Your task to perform on an android device: turn pop-ups on in chrome Image 0: 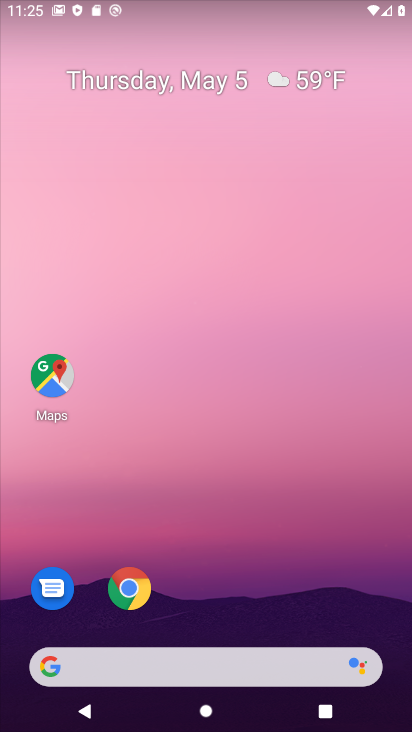
Step 0: drag from (174, 660) to (365, 34)
Your task to perform on an android device: turn pop-ups on in chrome Image 1: 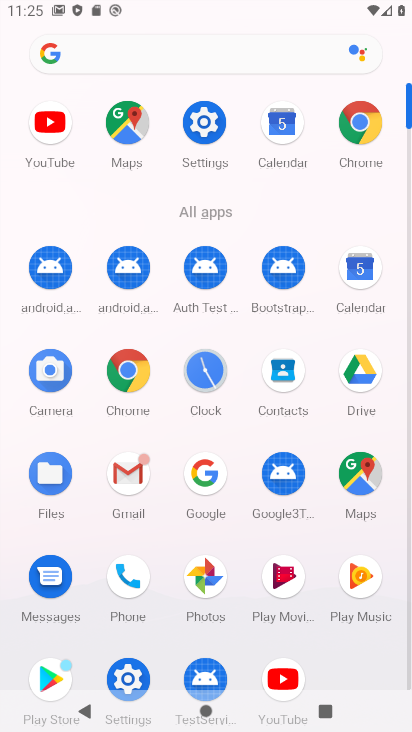
Step 1: click (360, 128)
Your task to perform on an android device: turn pop-ups on in chrome Image 2: 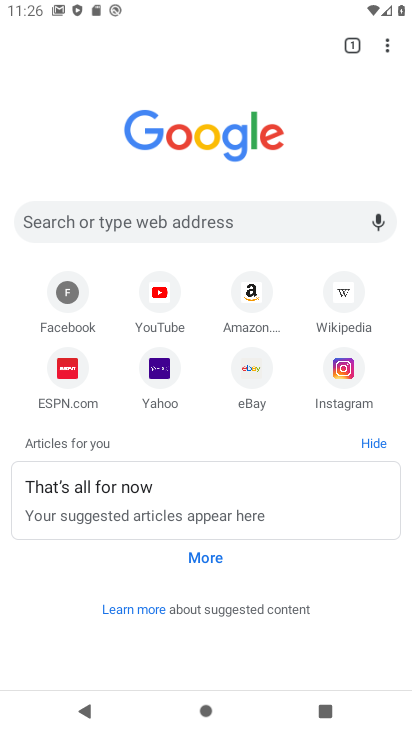
Step 2: drag from (389, 52) to (252, 391)
Your task to perform on an android device: turn pop-ups on in chrome Image 3: 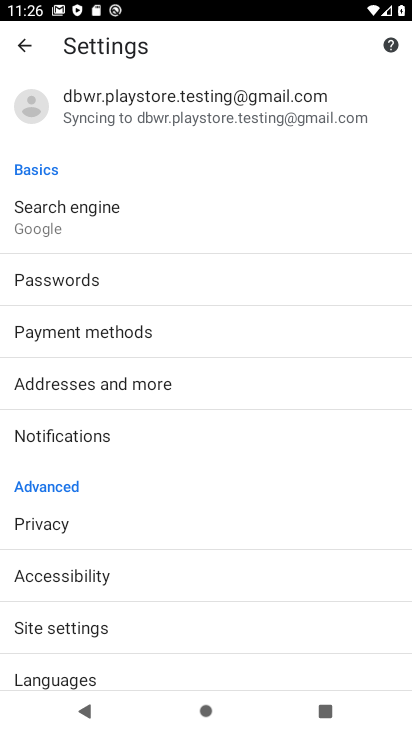
Step 3: click (88, 628)
Your task to perform on an android device: turn pop-ups on in chrome Image 4: 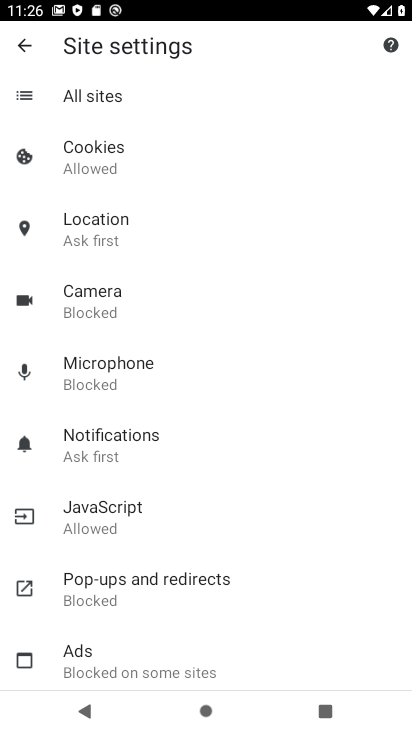
Step 4: click (176, 579)
Your task to perform on an android device: turn pop-ups on in chrome Image 5: 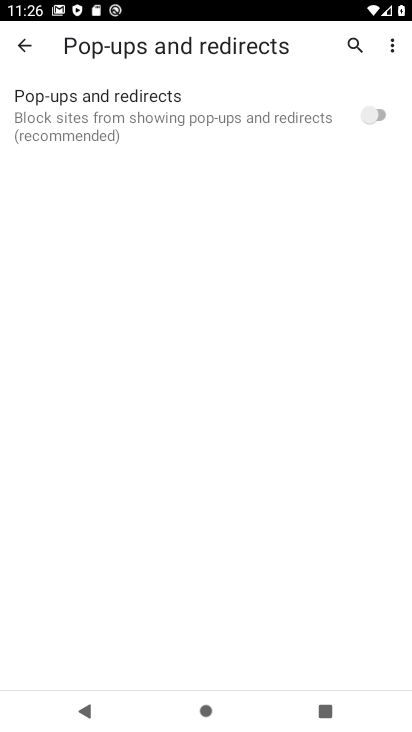
Step 5: click (381, 114)
Your task to perform on an android device: turn pop-ups on in chrome Image 6: 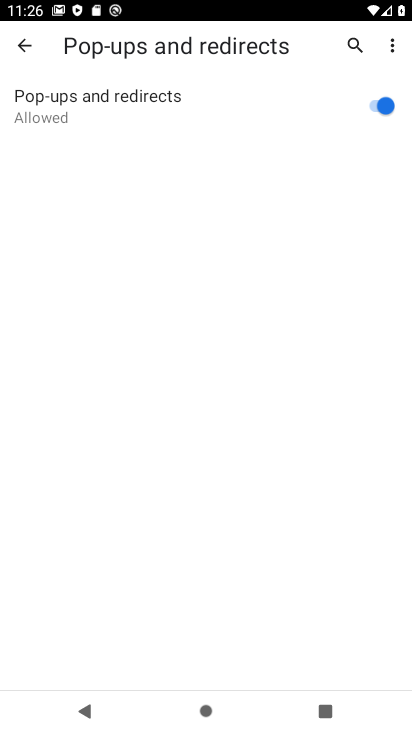
Step 6: task complete